Your task to perform on an android device: Go to accessibility settings Image 0: 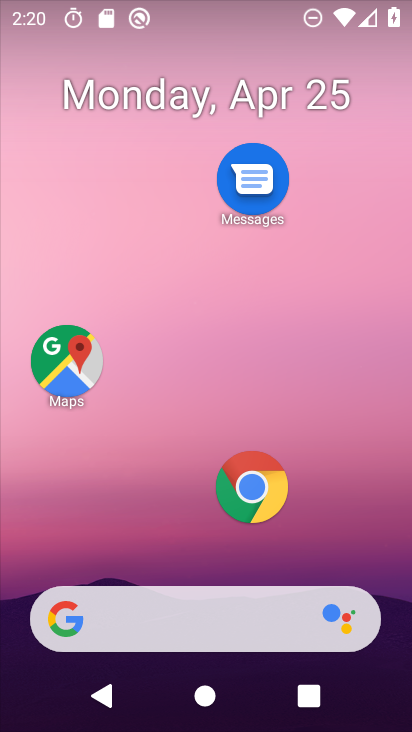
Step 0: drag from (82, 591) to (172, 21)
Your task to perform on an android device: Go to accessibility settings Image 1: 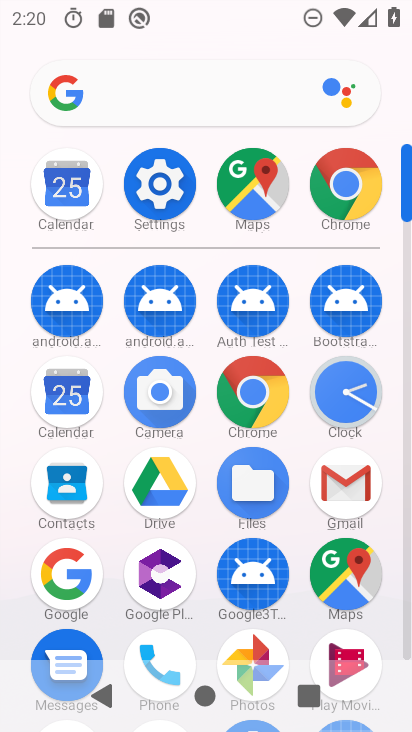
Step 1: drag from (219, 548) to (261, 73)
Your task to perform on an android device: Go to accessibility settings Image 2: 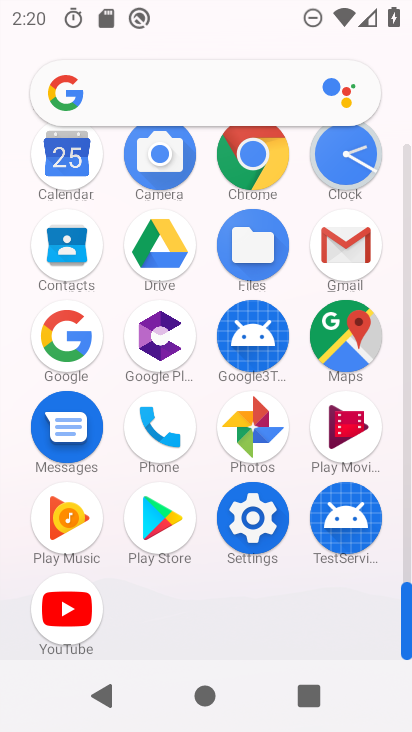
Step 2: click (257, 527)
Your task to perform on an android device: Go to accessibility settings Image 3: 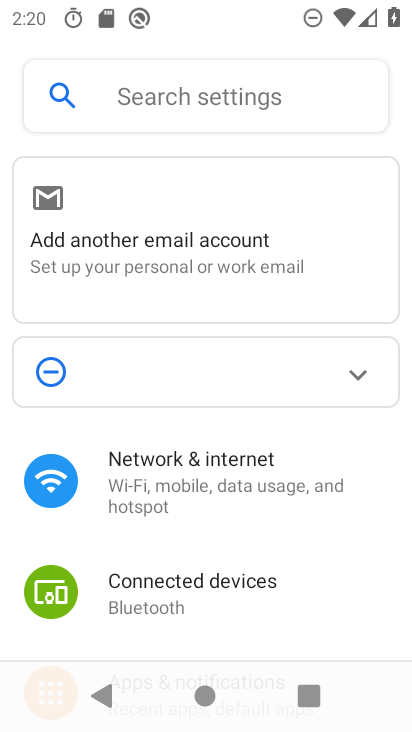
Step 3: drag from (262, 641) to (224, 40)
Your task to perform on an android device: Go to accessibility settings Image 4: 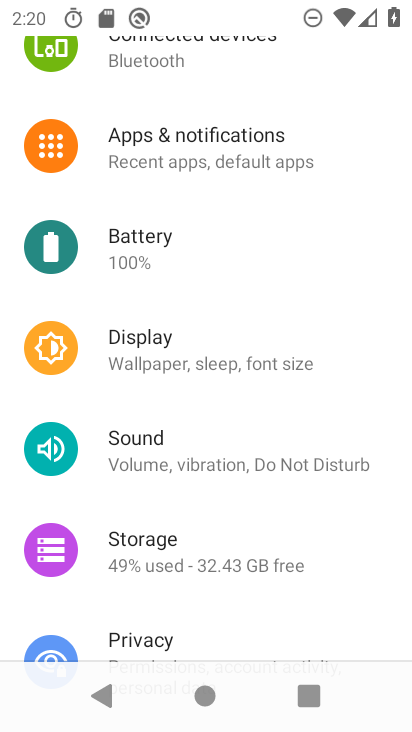
Step 4: drag from (174, 614) to (232, 25)
Your task to perform on an android device: Go to accessibility settings Image 5: 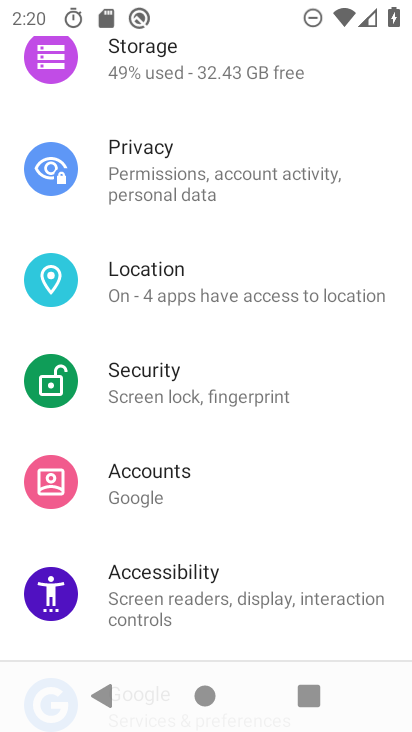
Step 5: drag from (222, 618) to (306, 61)
Your task to perform on an android device: Go to accessibility settings Image 6: 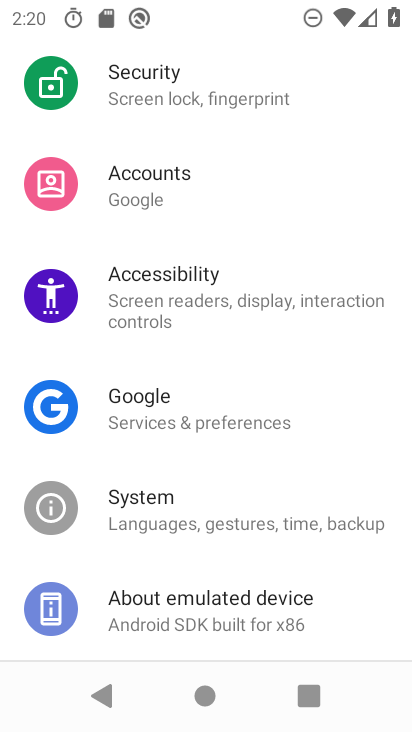
Step 6: click (216, 306)
Your task to perform on an android device: Go to accessibility settings Image 7: 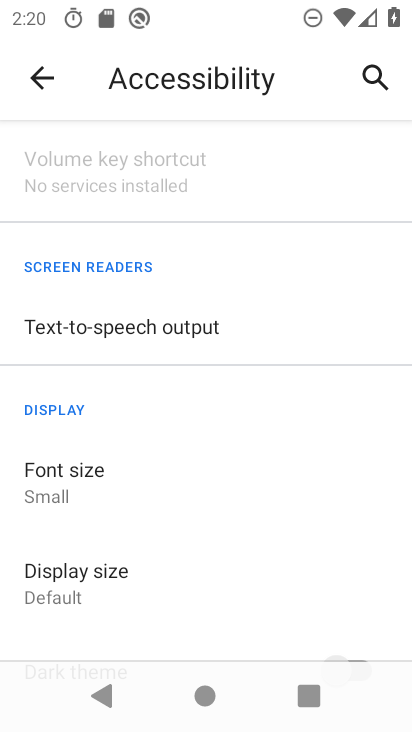
Step 7: task complete